Your task to perform on an android device: check android version Image 0: 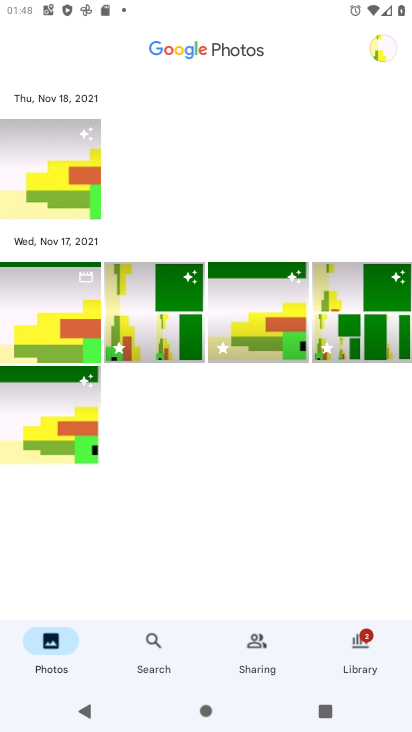
Step 0: press home button
Your task to perform on an android device: check android version Image 1: 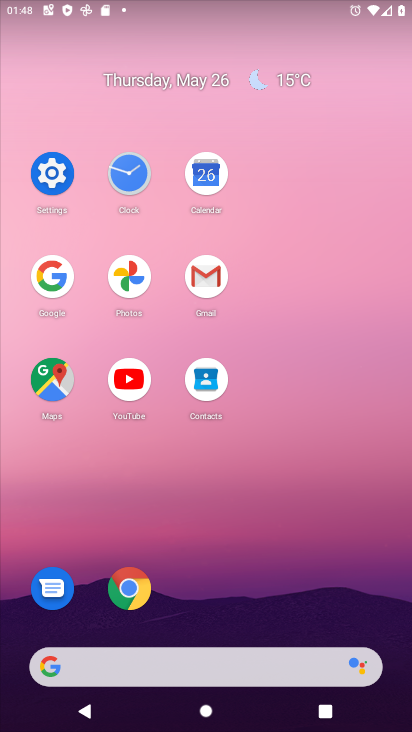
Step 1: click (67, 169)
Your task to perform on an android device: check android version Image 2: 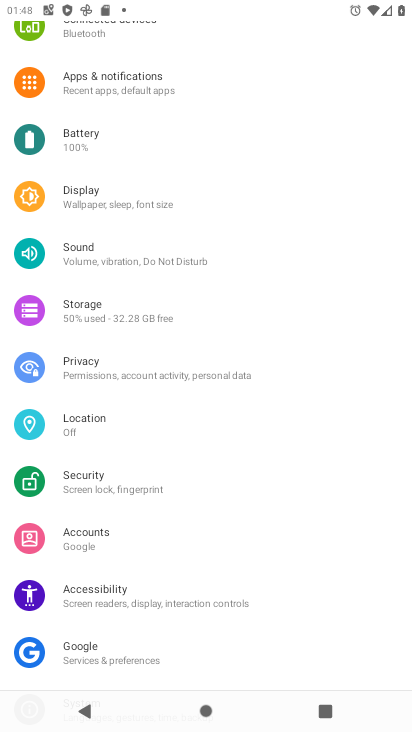
Step 2: drag from (224, 610) to (228, 282)
Your task to perform on an android device: check android version Image 3: 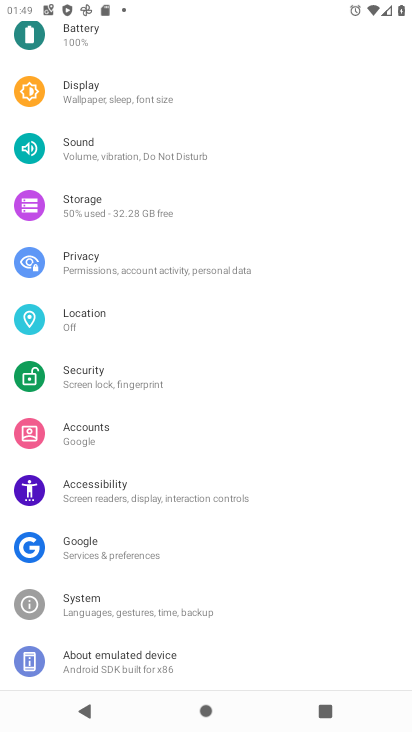
Step 3: click (181, 656)
Your task to perform on an android device: check android version Image 4: 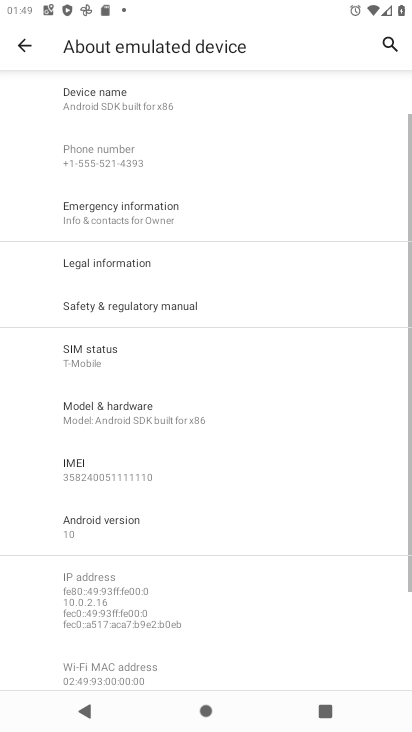
Step 4: click (148, 529)
Your task to perform on an android device: check android version Image 5: 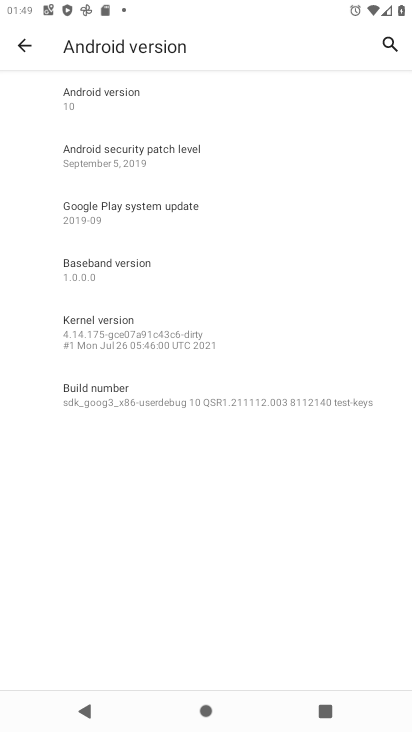
Step 5: task complete